Your task to perform on an android device: Open notification settings Image 0: 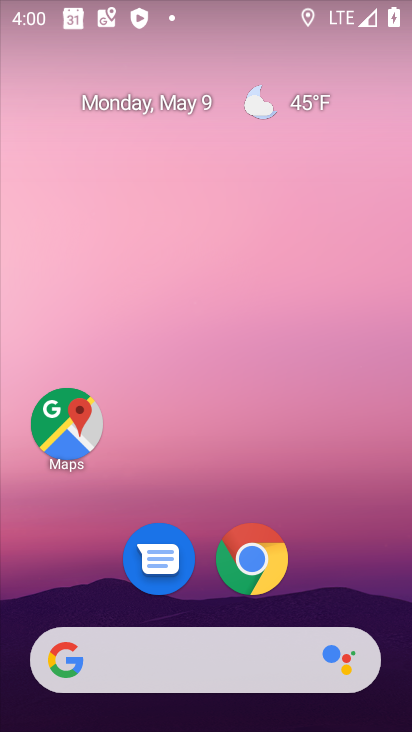
Step 0: drag from (205, 510) to (206, 8)
Your task to perform on an android device: Open notification settings Image 1: 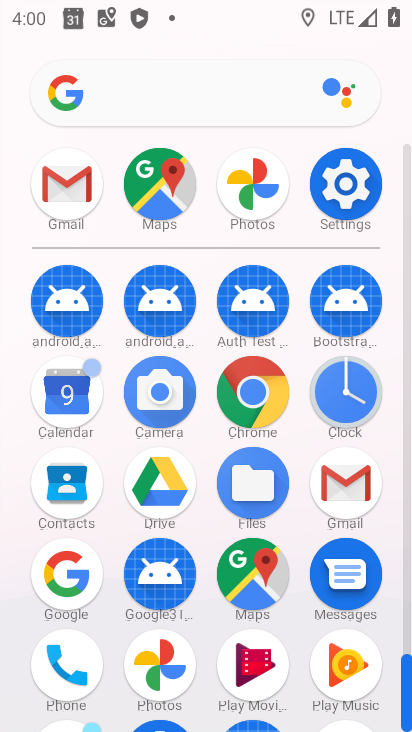
Step 1: click (346, 182)
Your task to perform on an android device: Open notification settings Image 2: 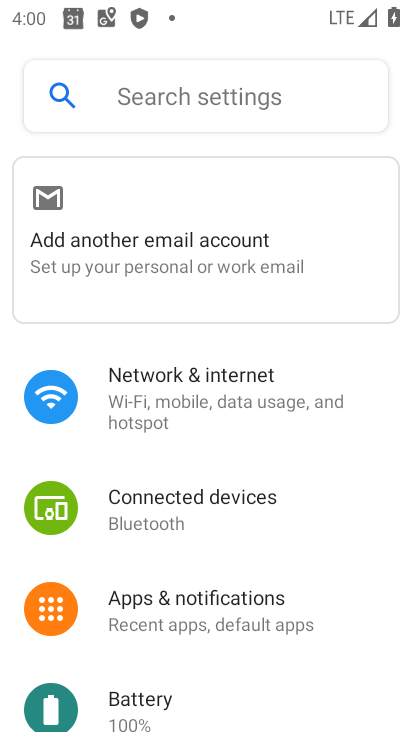
Step 2: click (171, 606)
Your task to perform on an android device: Open notification settings Image 3: 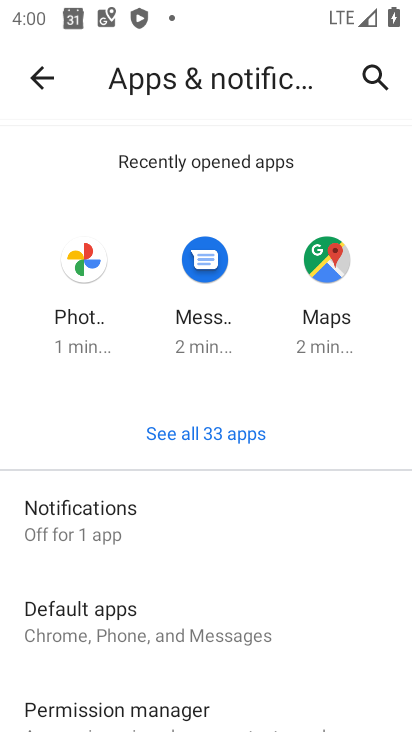
Step 3: click (46, 498)
Your task to perform on an android device: Open notification settings Image 4: 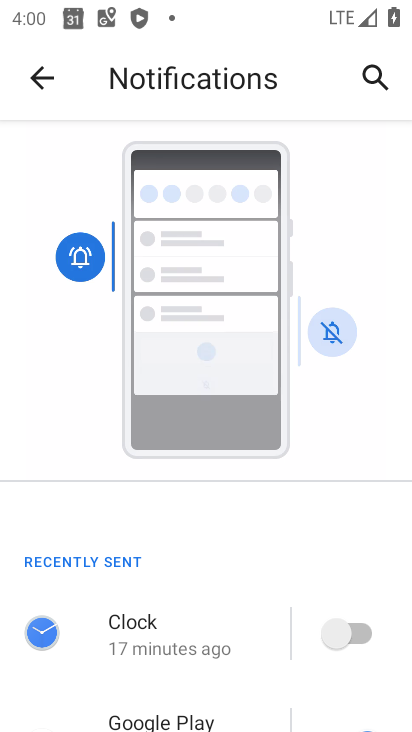
Step 4: task complete